Your task to perform on an android device: turn off priority inbox in the gmail app Image 0: 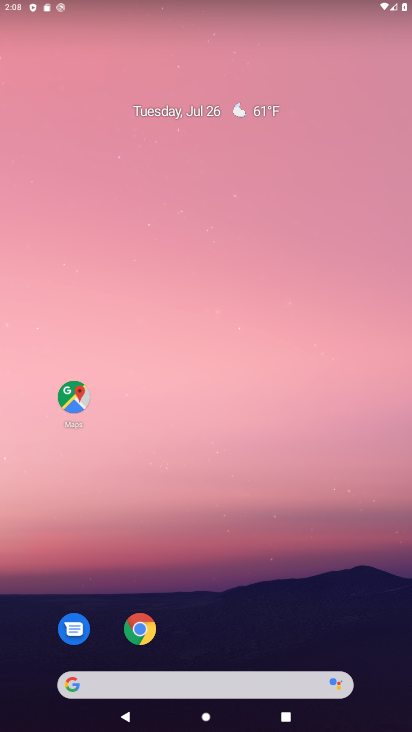
Step 0: drag from (224, 604) to (230, 144)
Your task to perform on an android device: turn off priority inbox in the gmail app Image 1: 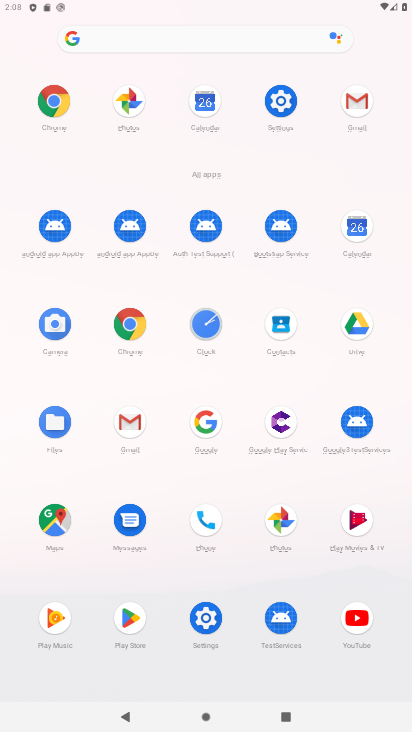
Step 1: click (347, 100)
Your task to perform on an android device: turn off priority inbox in the gmail app Image 2: 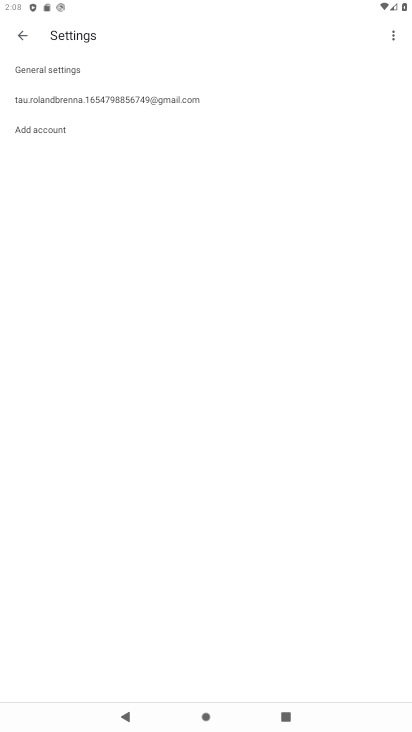
Step 2: click (56, 99)
Your task to perform on an android device: turn off priority inbox in the gmail app Image 3: 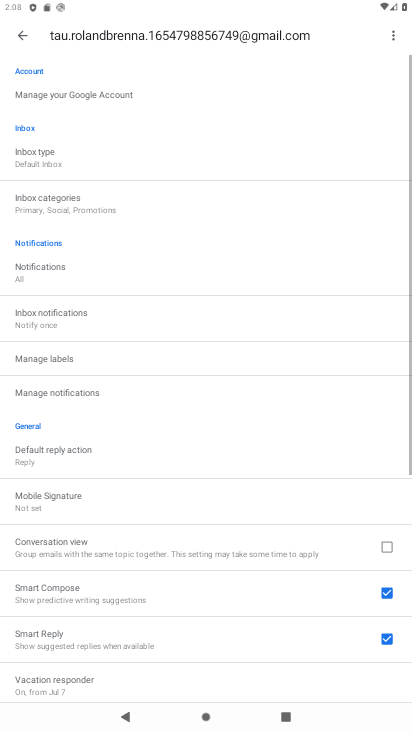
Step 3: click (43, 162)
Your task to perform on an android device: turn off priority inbox in the gmail app Image 4: 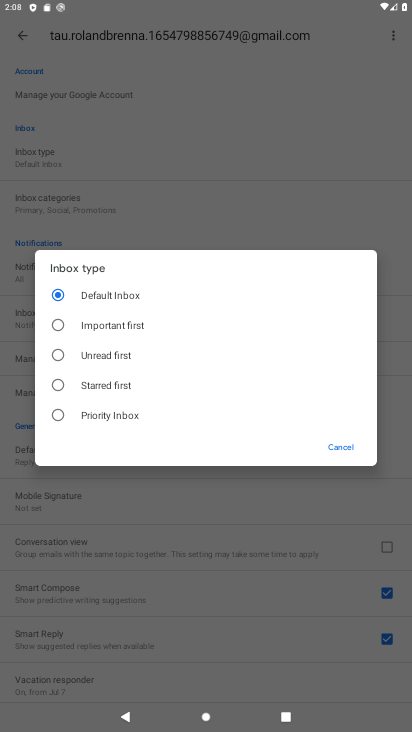
Step 4: task complete